Your task to perform on an android device: Open location settings Image 0: 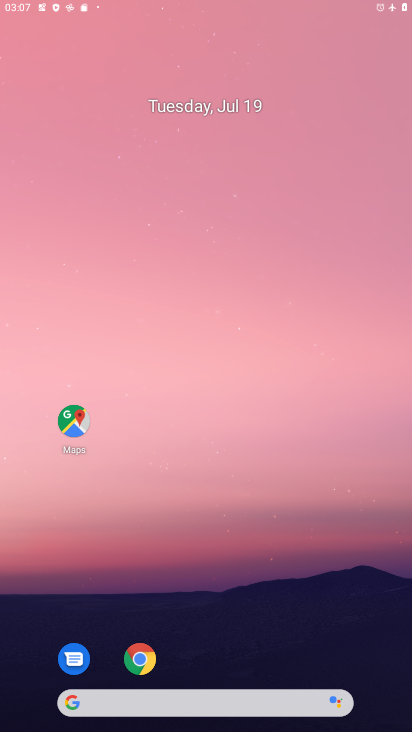
Step 0: press home button
Your task to perform on an android device: Open location settings Image 1: 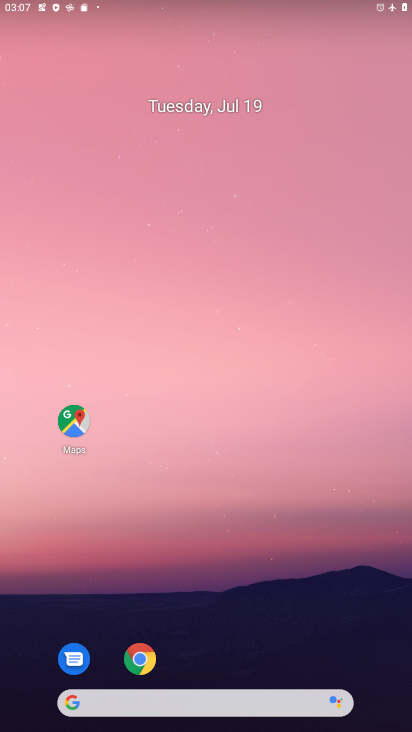
Step 1: drag from (252, 667) to (199, 110)
Your task to perform on an android device: Open location settings Image 2: 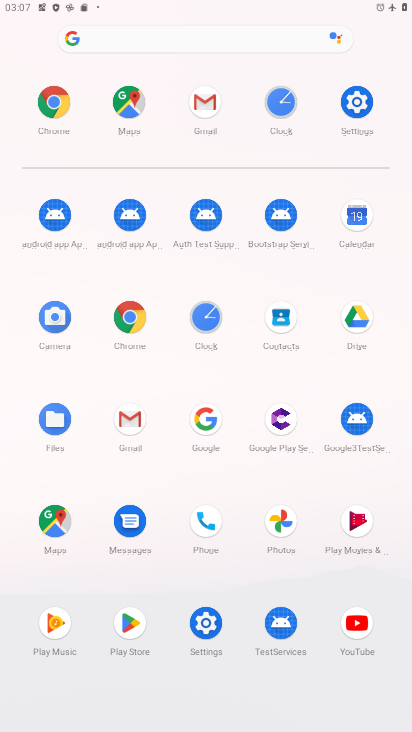
Step 2: click (227, 620)
Your task to perform on an android device: Open location settings Image 3: 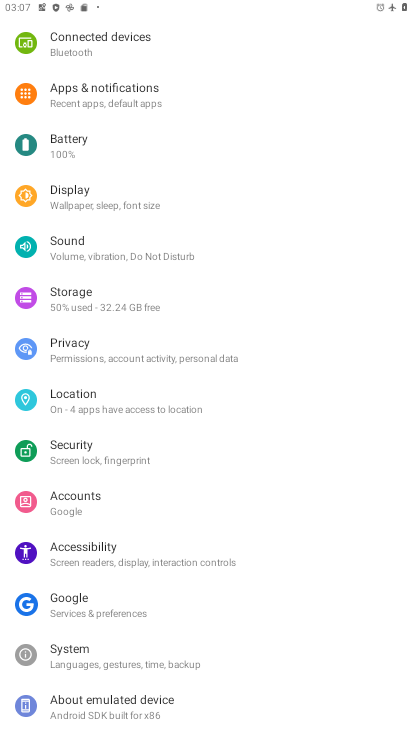
Step 3: click (73, 405)
Your task to perform on an android device: Open location settings Image 4: 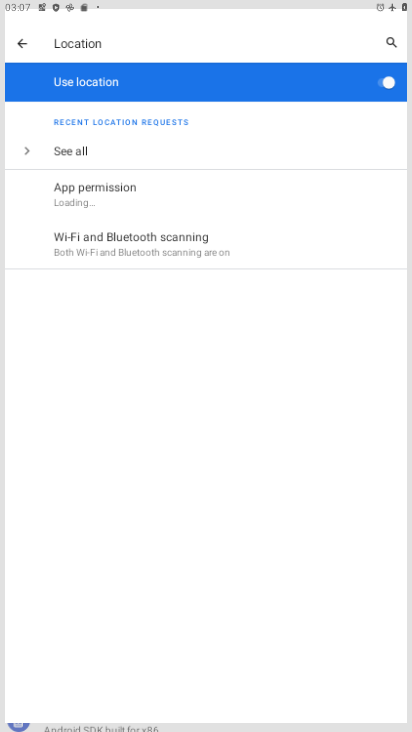
Step 4: task complete